Your task to perform on an android device: uninstall "LinkedIn" Image 0: 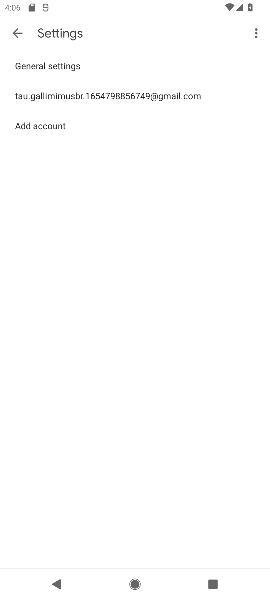
Step 0: press home button
Your task to perform on an android device: uninstall "LinkedIn" Image 1: 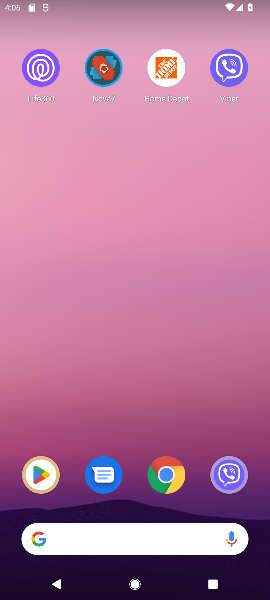
Step 1: click (38, 473)
Your task to perform on an android device: uninstall "LinkedIn" Image 2: 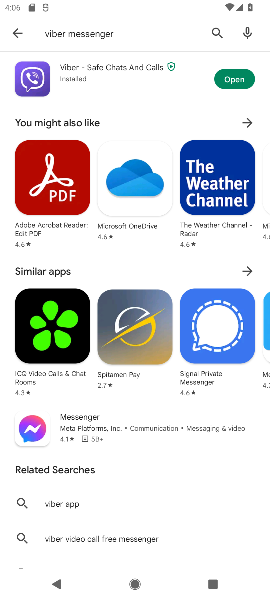
Step 2: click (20, 29)
Your task to perform on an android device: uninstall "LinkedIn" Image 3: 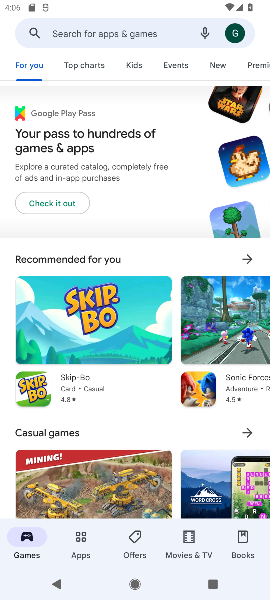
Step 3: click (75, 30)
Your task to perform on an android device: uninstall "LinkedIn" Image 4: 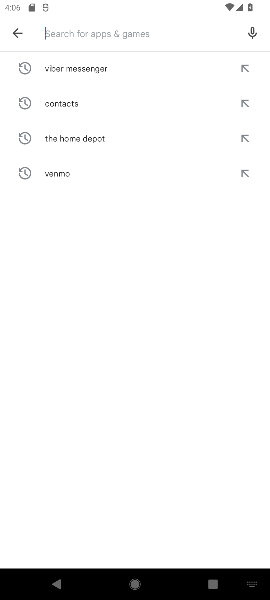
Step 4: type ""LinkedIn"
Your task to perform on an android device: uninstall "LinkedIn" Image 5: 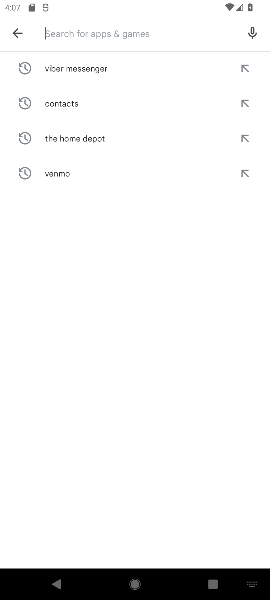
Step 5: type "Linkedln"
Your task to perform on an android device: uninstall "LinkedIn" Image 6: 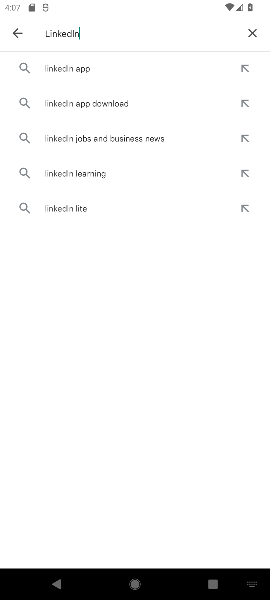
Step 6: click (77, 68)
Your task to perform on an android device: uninstall "LinkedIn" Image 7: 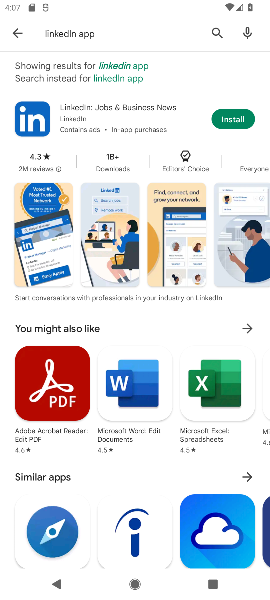
Step 7: task complete